Your task to perform on an android device: Go to CNN.com Image 0: 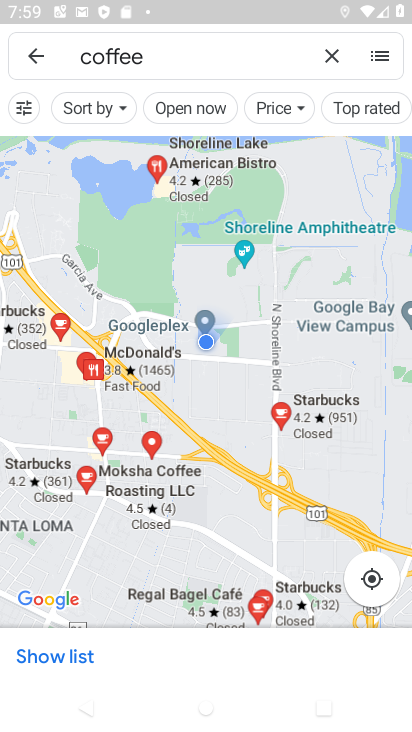
Step 0: press home button
Your task to perform on an android device: Go to CNN.com Image 1: 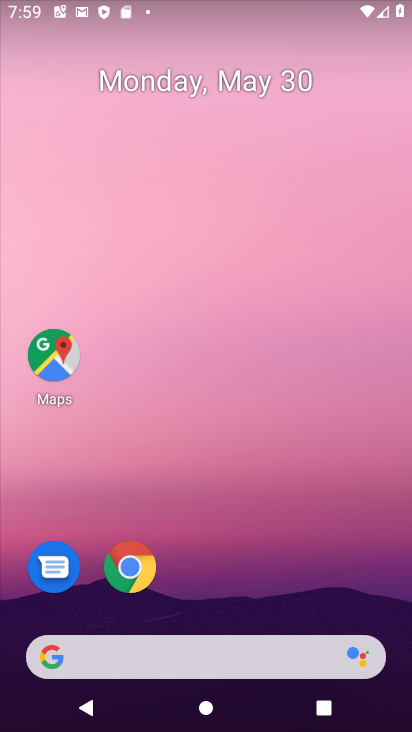
Step 1: click (194, 673)
Your task to perform on an android device: Go to CNN.com Image 2: 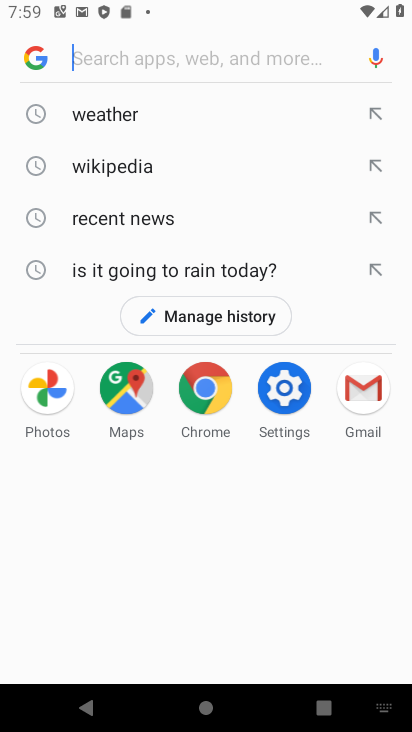
Step 2: type "cnn.com"
Your task to perform on an android device: Go to CNN.com Image 3: 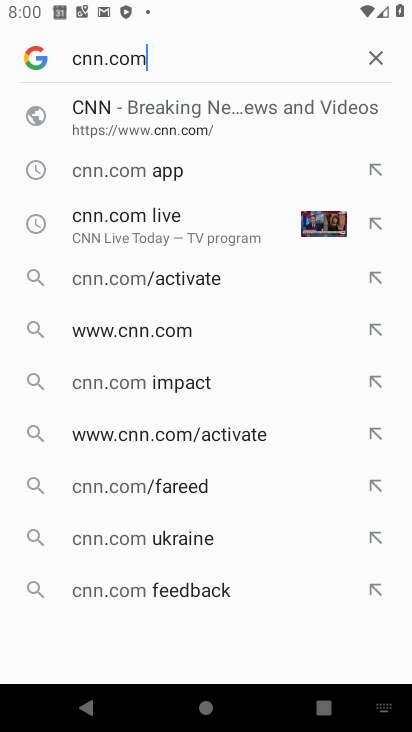
Step 3: click (111, 114)
Your task to perform on an android device: Go to CNN.com Image 4: 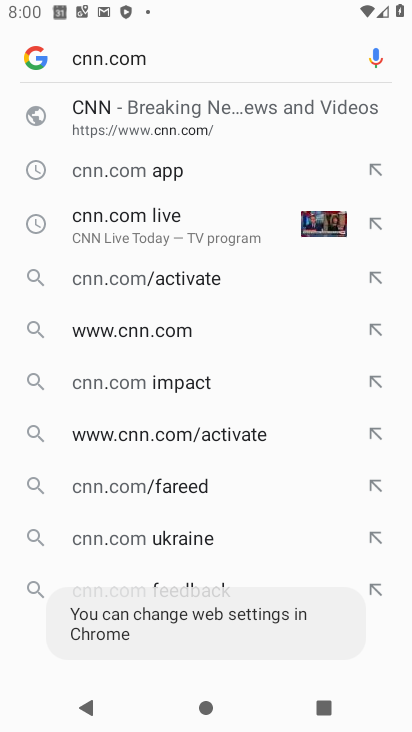
Step 4: task complete